Your task to perform on an android device: turn pop-ups on in chrome Image 0: 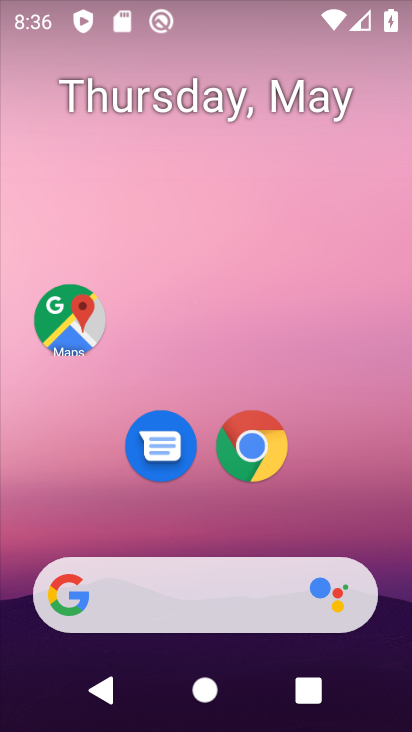
Step 0: click (251, 438)
Your task to perform on an android device: turn pop-ups on in chrome Image 1: 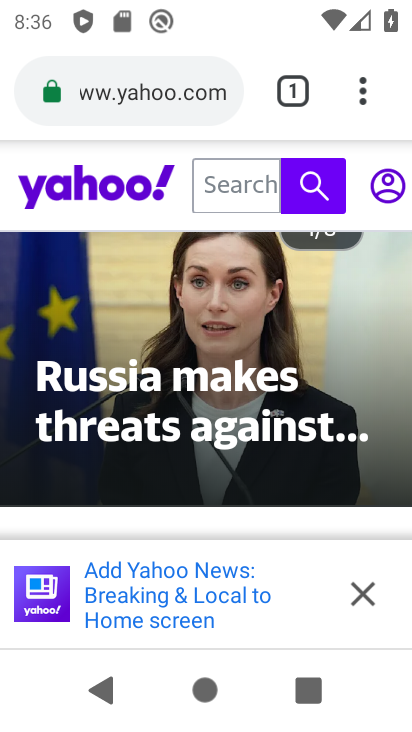
Step 1: click (358, 92)
Your task to perform on an android device: turn pop-ups on in chrome Image 2: 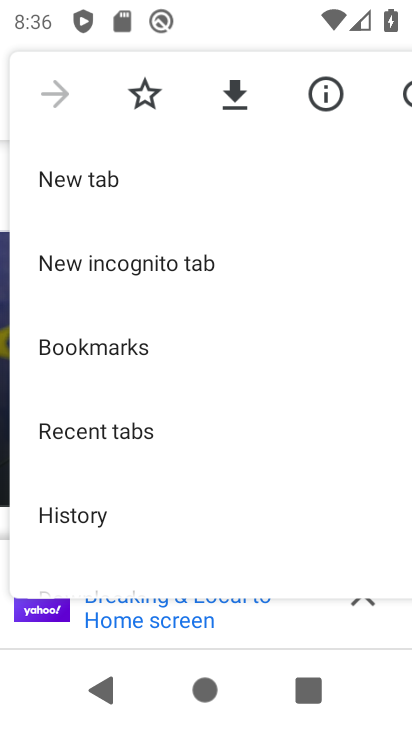
Step 2: drag from (194, 507) to (207, 162)
Your task to perform on an android device: turn pop-ups on in chrome Image 3: 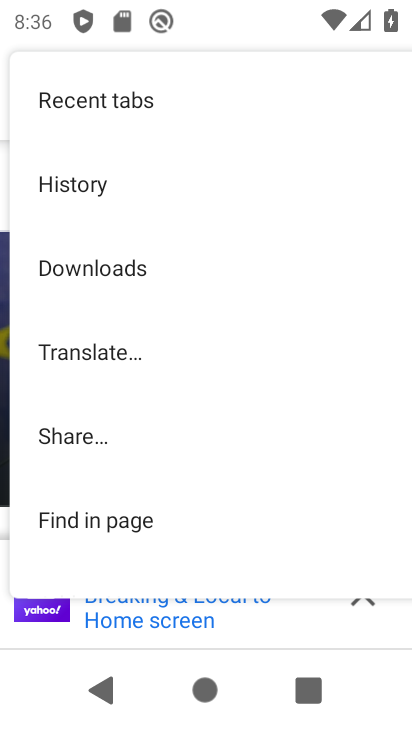
Step 3: drag from (200, 516) to (172, 6)
Your task to perform on an android device: turn pop-ups on in chrome Image 4: 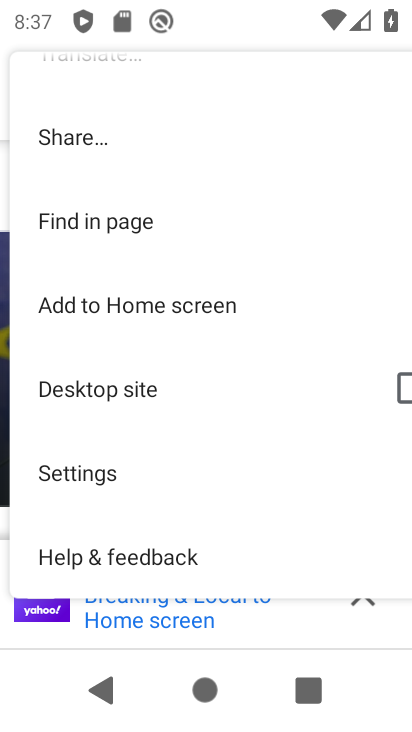
Step 4: click (84, 473)
Your task to perform on an android device: turn pop-ups on in chrome Image 5: 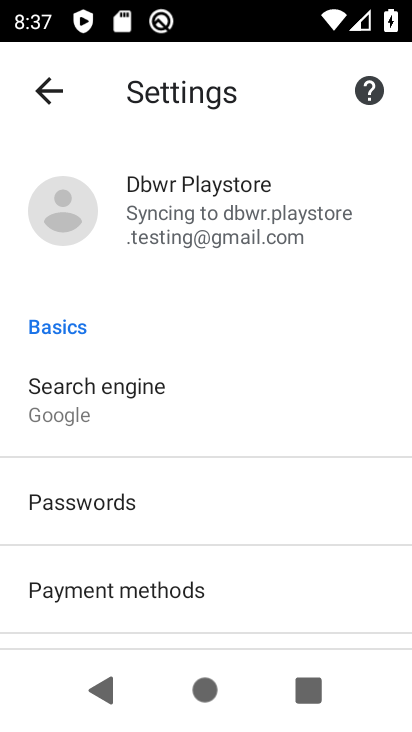
Step 5: drag from (227, 603) to (221, 196)
Your task to perform on an android device: turn pop-ups on in chrome Image 6: 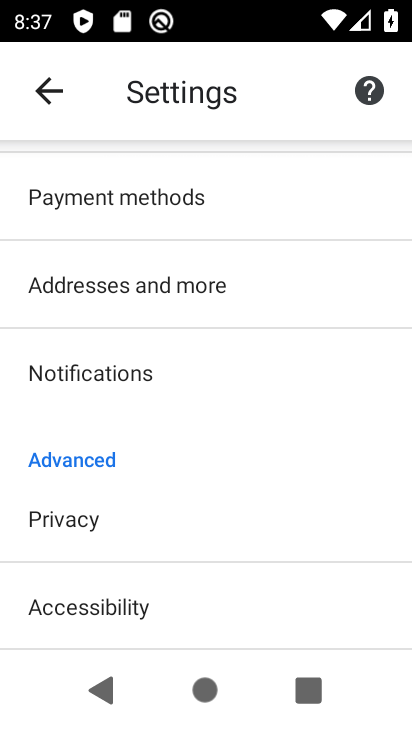
Step 6: drag from (210, 537) to (277, 169)
Your task to perform on an android device: turn pop-ups on in chrome Image 7: 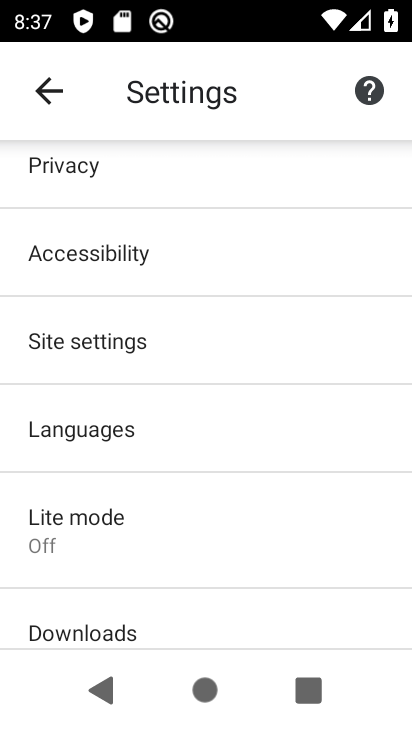
Step 7: click (90, 340)
Your task to perform on an android device: turn pop-ups on in chrome Image 8: 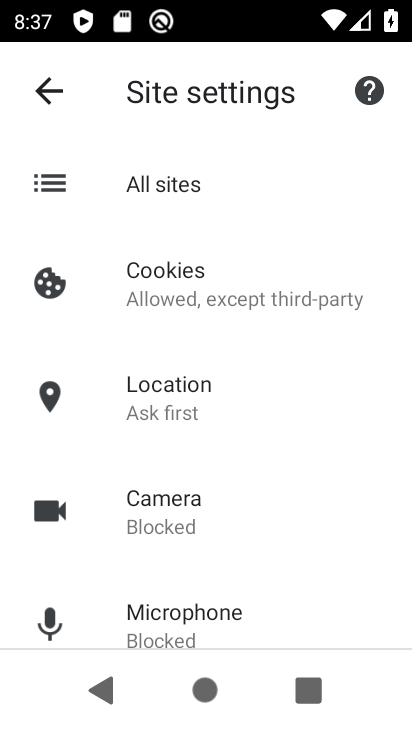
Step 8: drag from (273, 598) to (291, 143)
Your task to perform on an android device: turn pop-ups on in chrome Image 9: 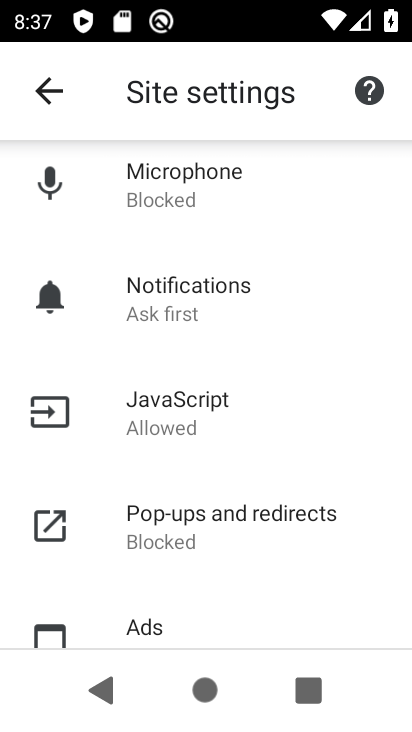
Step 9: click (161, 519)
Your task to perform on an android device: turn pop-ups on in chrome Image 10: 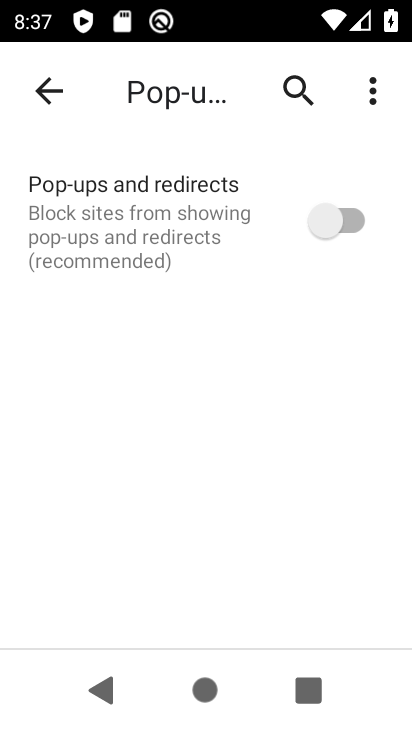
Step 10: click (355, 216)
Your task to perform on an android device: turn pop-ups on in chrome Image 11: 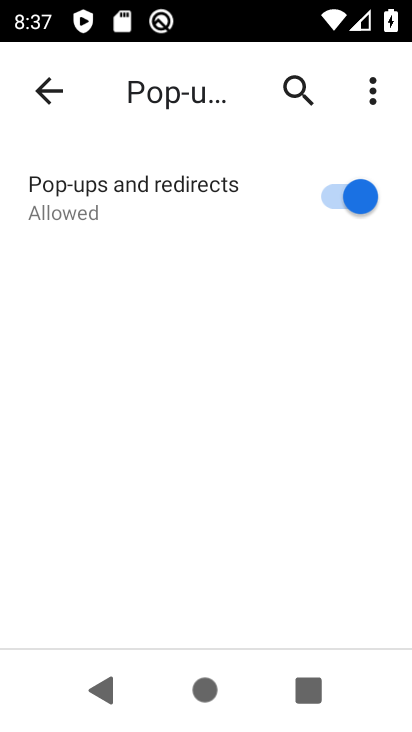
Step 11: task complete